Your task to perform on an android device: Go to location settings Image 0: 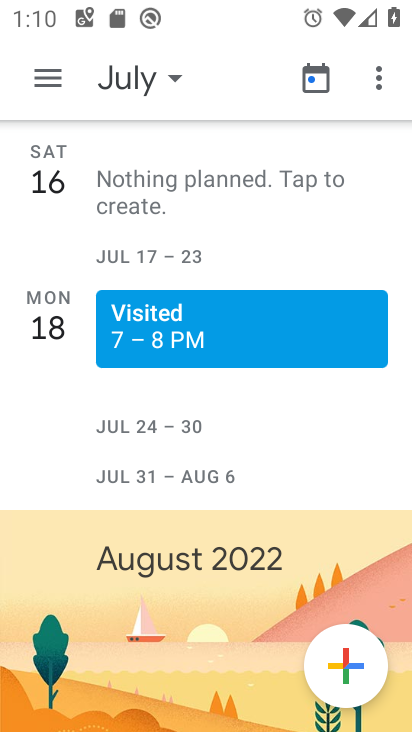
Step 0: press home button
Your task to perform on an android device: Go to location settings Image 1: 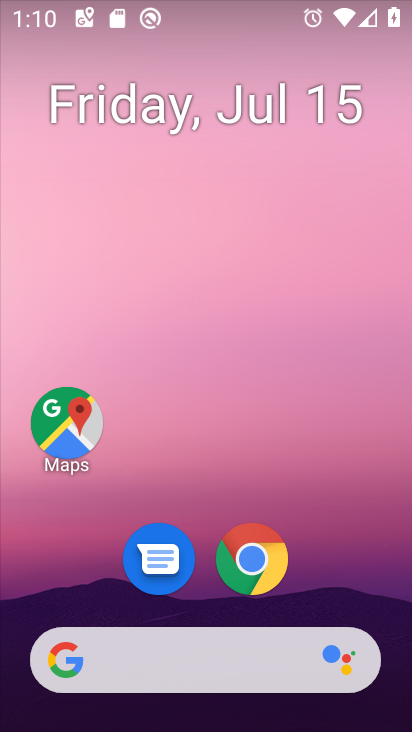
Step 1: drag from (358, 598) to (362, 94)
Your task to perform on an android device: Go to location settings Image 2: 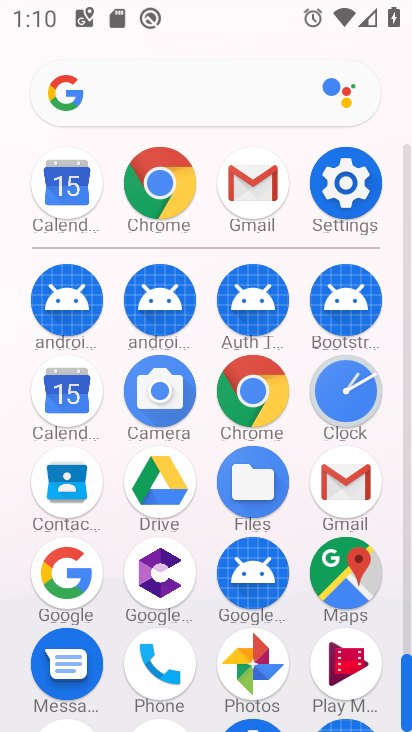
Step 2: click (356, 195)
Your task to perform on an android device: Go to location settings Image 3: 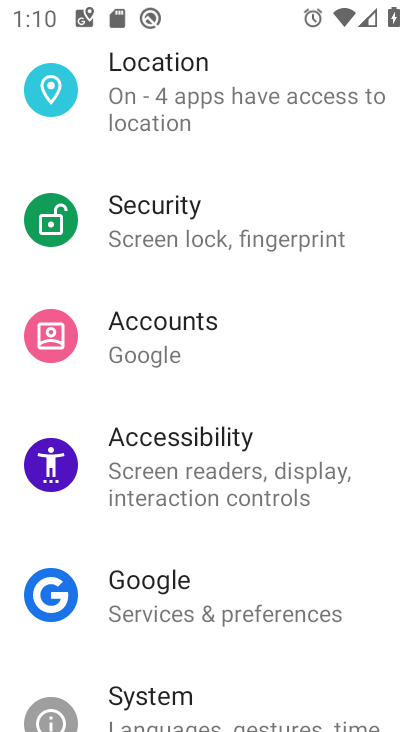
Step 3: drag from (359, 214) to (358, 333)
Your task to perform on an android device: Go to location settings Image 4: 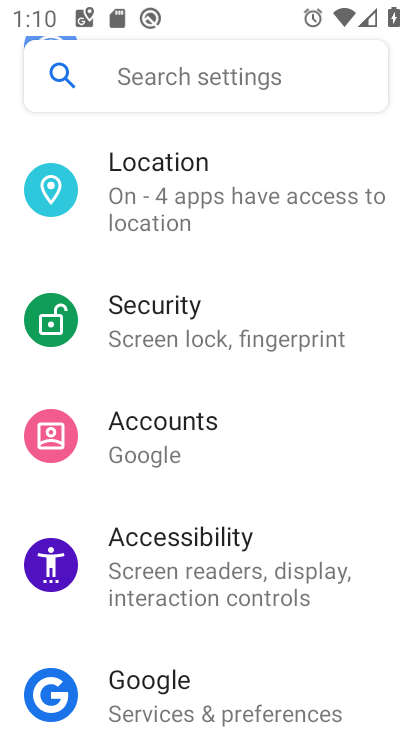
Step 4: drag from (360, 249) to (360, 372)
Your task to perform on an android device: Go to location settings Image 5: 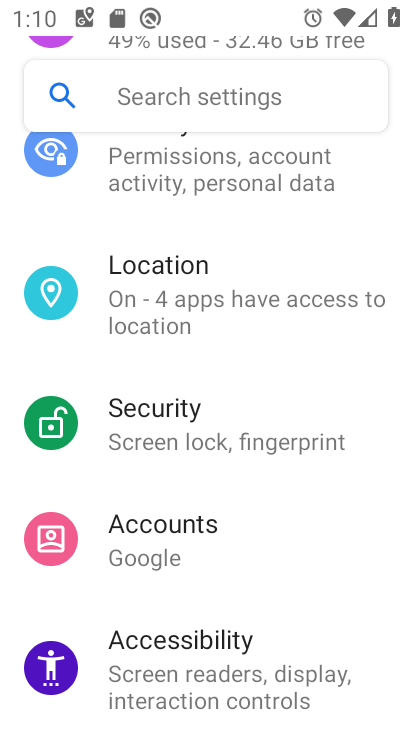
Step 5: drag from (353, 216) to (361, 344)
Your task to perform on an android device: Go to location settings Image 6: 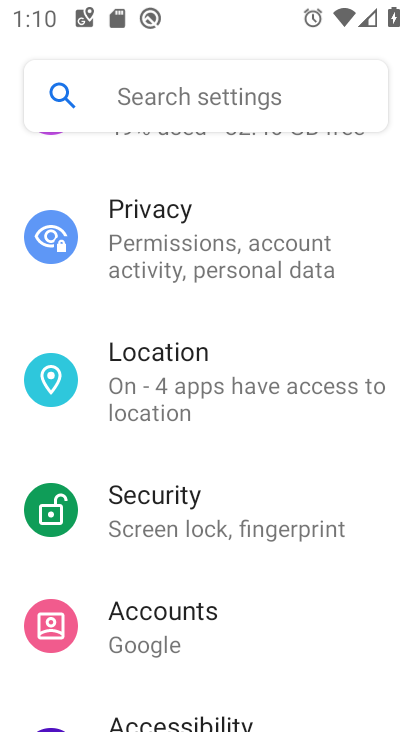
Step 6: drag from (355, 207) to (353, 316)
Your task to perform on an android device: Go to location settings Image 7: 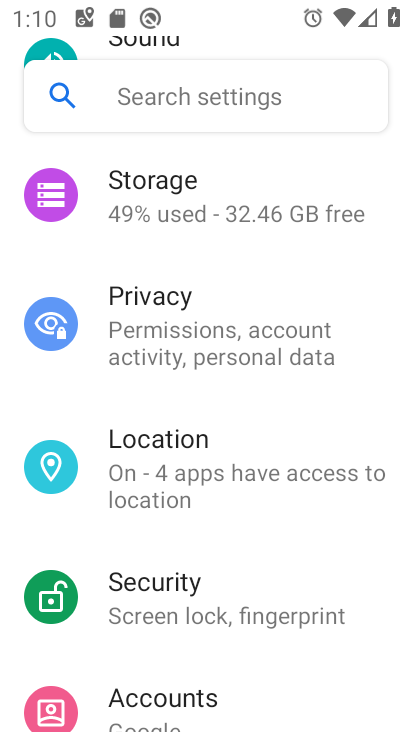
Step 7: drag from (366, 199) to (366, 343)
Your task to perform on an android device: Go to location settings Image 8: 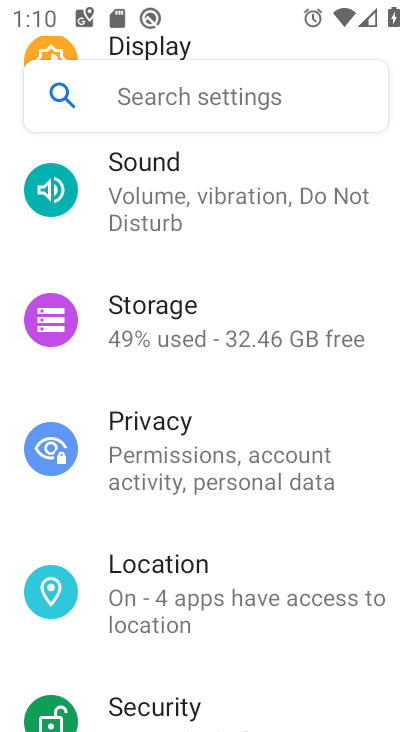
Step 8: drag from (368, 241) to (364, 386)
Your task to perform on an android device: Go to location settings Image 9: 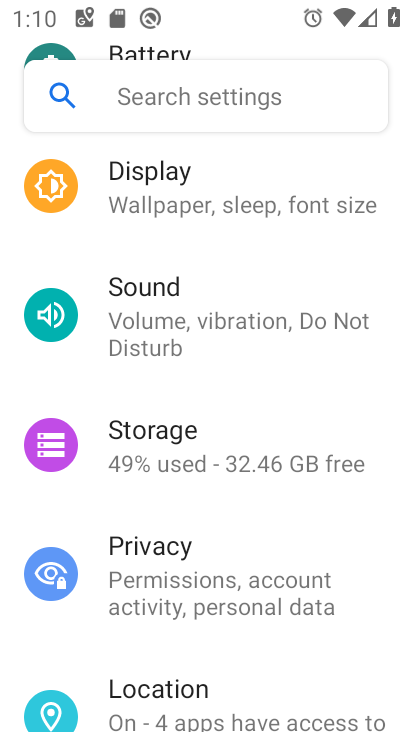
Step 9: drag from (357, 184) to (351, 417)
Your task to perform on an android device: Go to location settings Image 10: 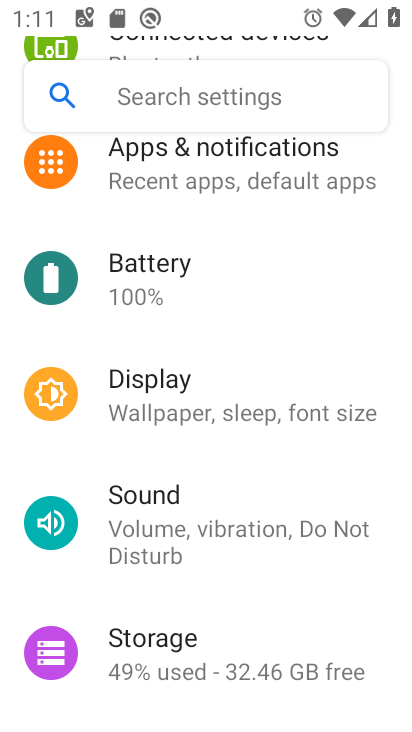
Step 10: drag from (354, 235) to (355, 400)
Your task to perform on an android device: Go to location settings Image 11: 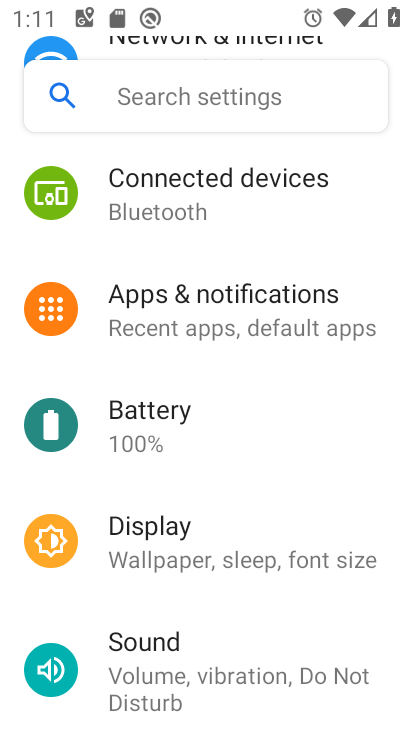
Step 11: drag from (353, 443) to (352, 195)
Your task to perform on an android device: Go to location settings Image 12: 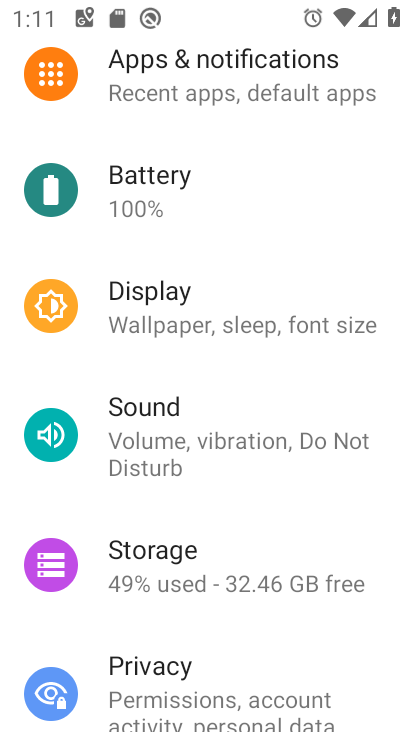
Step 12: drag from (343, 519) to (350, 430)
Your task to perform on an android device: Go to location settings Image 13: 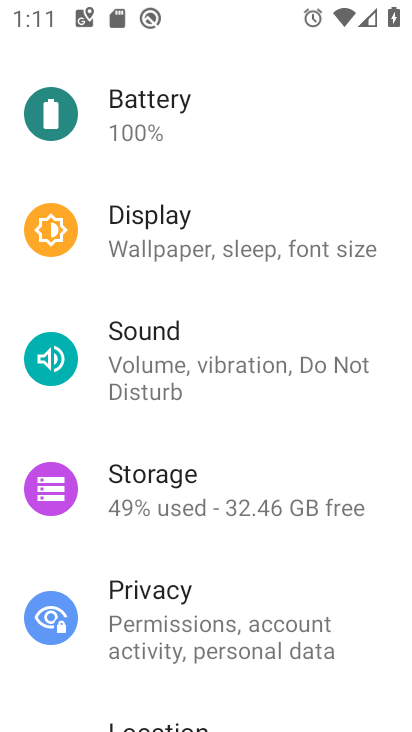
Step 13: drag from (358, 577) to (361, 428)
Your task to perform on an android device: Go to location settings Image 14: 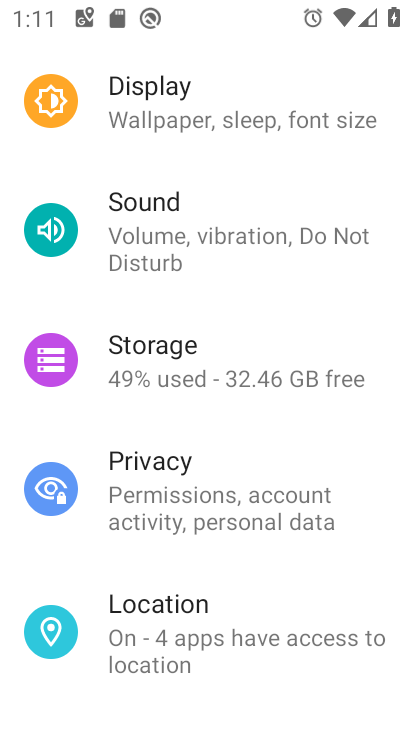
Step 14: drag from (345, 599) to (346, 452)
Your task to perform on an android device: Go to location settings Image 15: 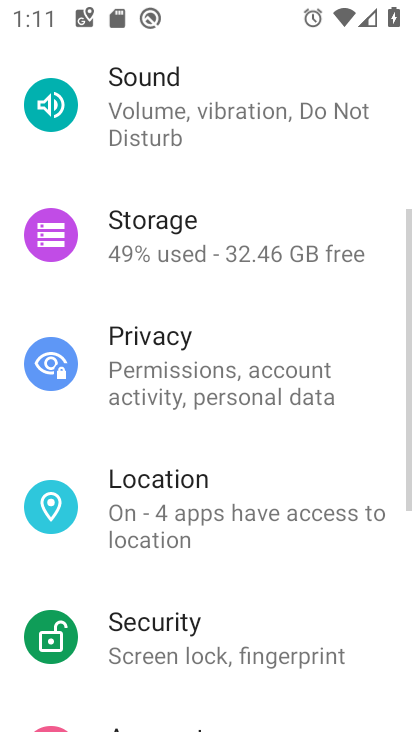
Step 15: click (326, 518)
Your task to perform on an android device: Go to location settings Image 16: 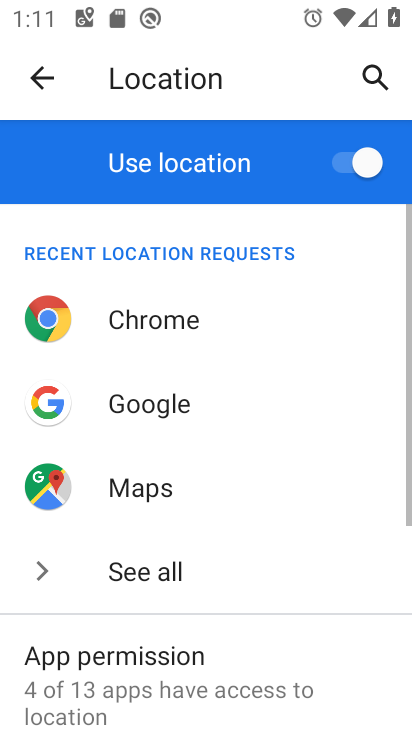
Step 16: task complete